Your task to perform on an android device: Play the last video I watched on Youtube Image 0: 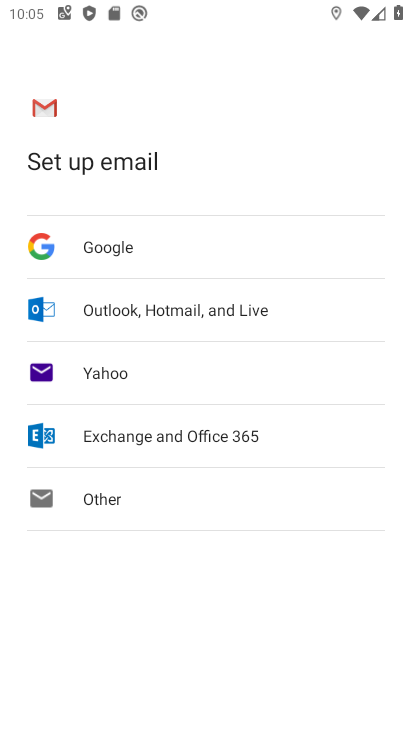
Step 0: press home button
Your task to perform on an android device: Play the last video I watched on Youtube Image 1: 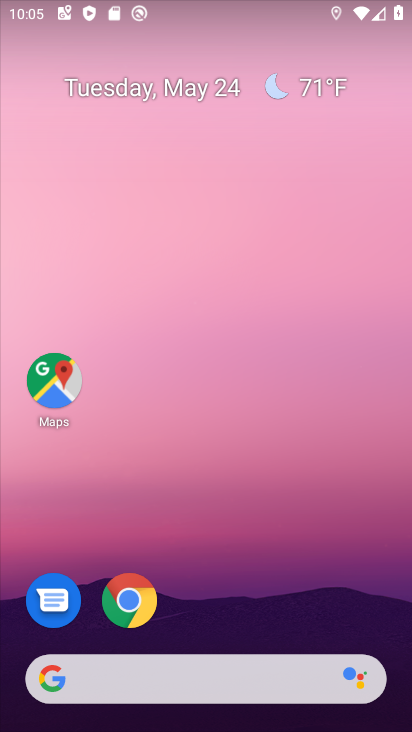
Step 1: drag from (232, 433) to (232, 7)
Your task to perform on an android device: Play the last video I watched on Youtube Image 2: 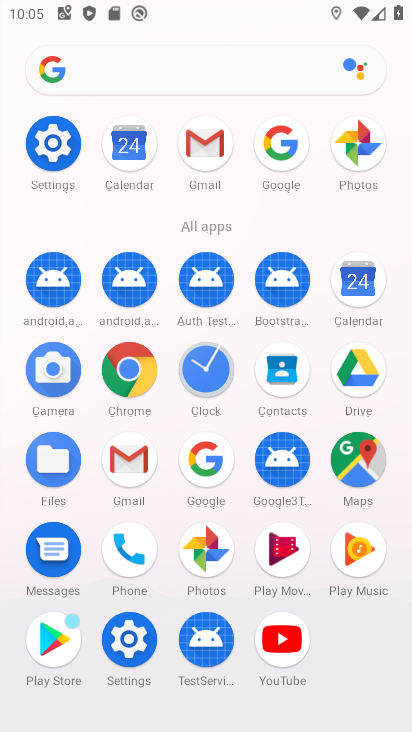
Step 2: click (284, 648)
Your task to perform on an android device: Play the last video I watched on Youtube Image 3: 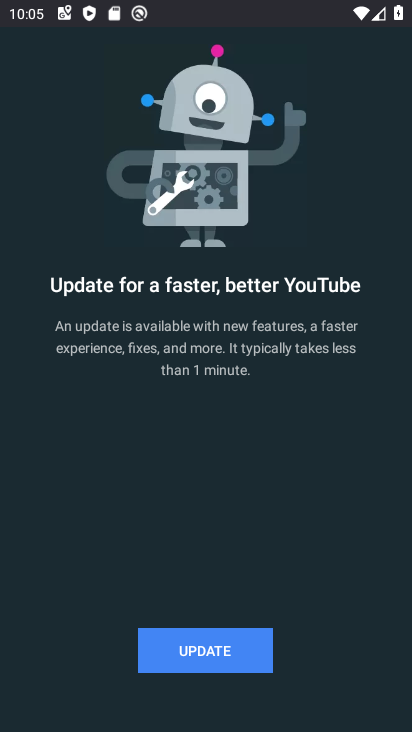
Step 3: drag from (224, 648) to (178, 648)
Your task to perform on an android device: Play the last video I watched on Youtube Image 4: 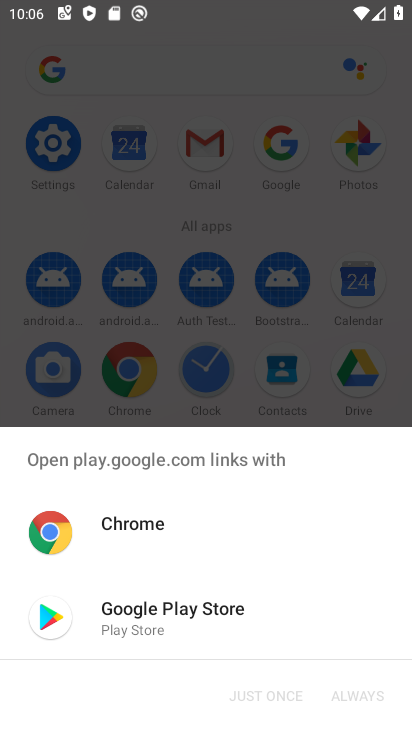
Step 4: click (178, 631)
Your task to perform on an android device: Play the last video I watched on Youtube Image 5: 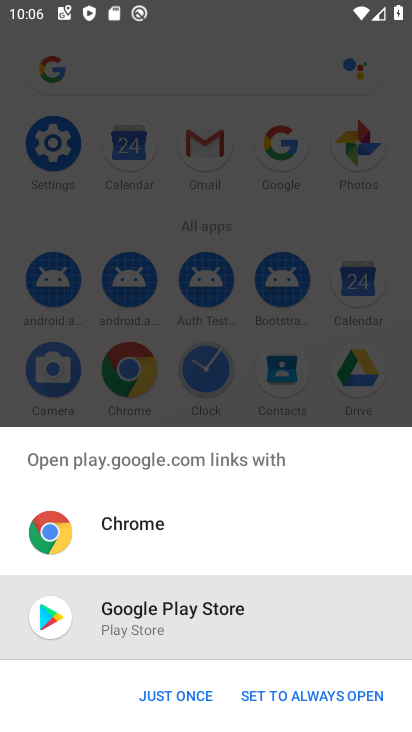
Step 5: click (313, 704)
Your task to perform on an android device: Play the last video I watched on Youtube Image 6: 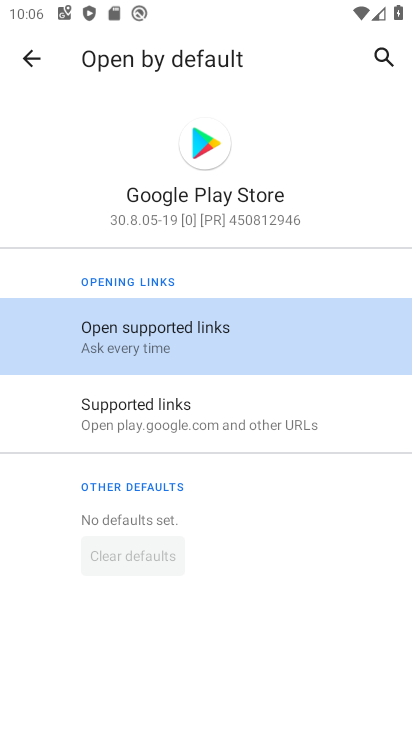
Step 6: click (153, 336)
Your task to perform on an android device: Play the last video I watched on Youtube Image 7: 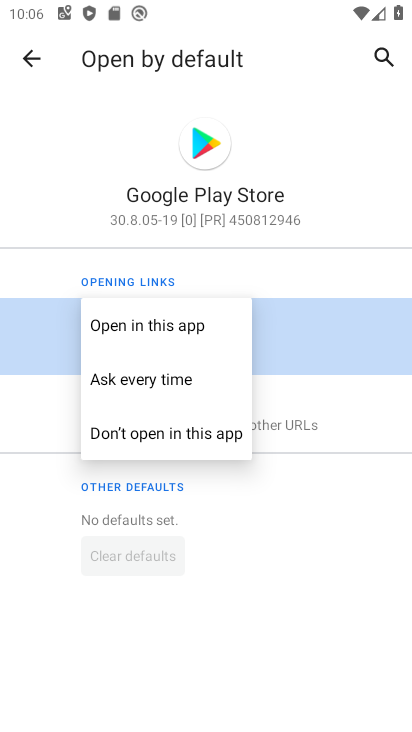
Step 7: click (171, 335)
Your task to perform on an android device: Play the last video I watched on Youtube Image 8: 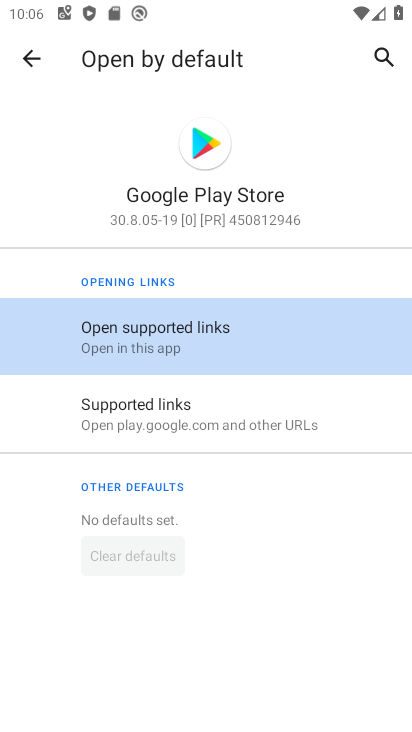
Step 8: click (28, 69)
Your task to perform on an android device: Play the last video I watched on Youtube Image 9: 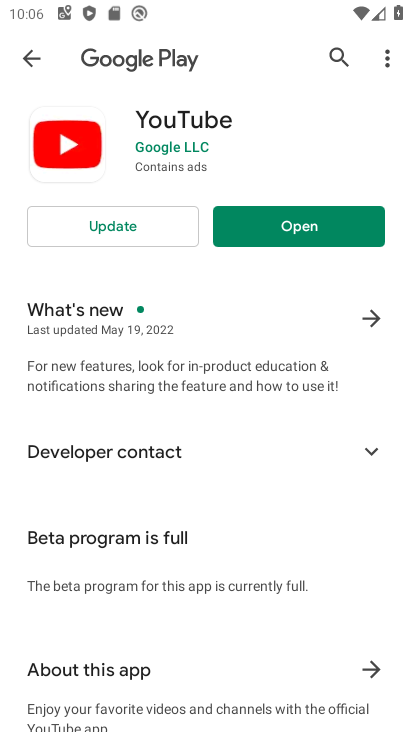
Step 9: click (132, 237)
Your task to perform on an android device: Play the last video I watched on Youtube Image 10: 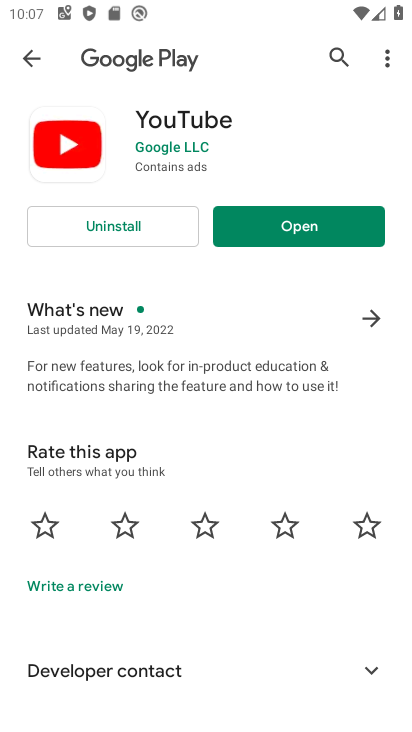
Step 10: click (305, 237)
Your task to perform on an android device: Play the last video I watched on Youtube Image 11: 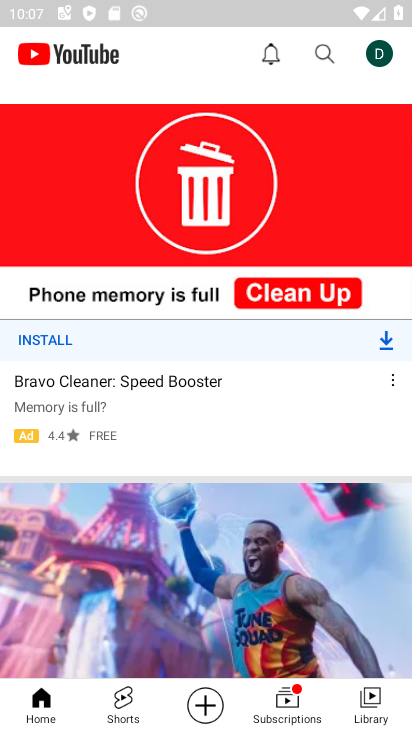
Step 11: click (362, 706)
Your task to perform on an android device: Play the last video I watched on Youtube Image 12: 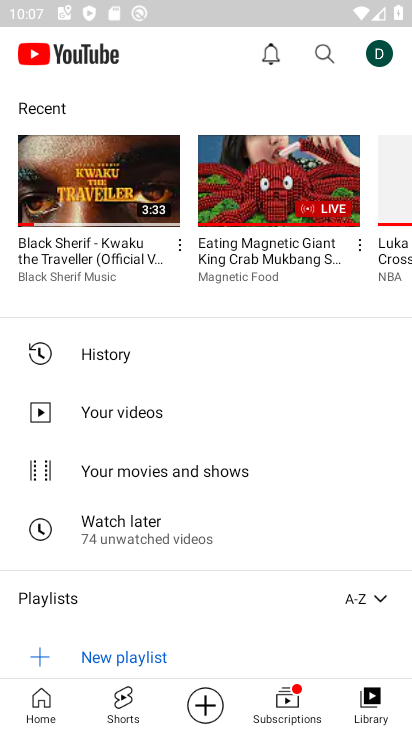
Step 12: task complete